Your task to perform on an android device: find which apps use the phone's location Image 0: 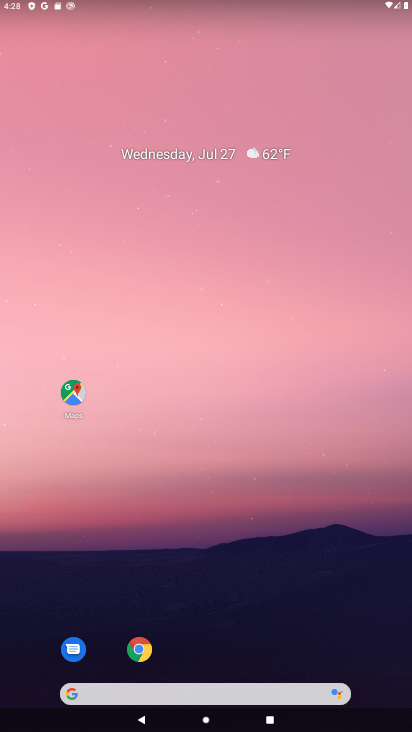
Step 0: drag from (286, 586) to (316, 240)
Your task to perform on an android device: find which apps use the phone's location Image 1: 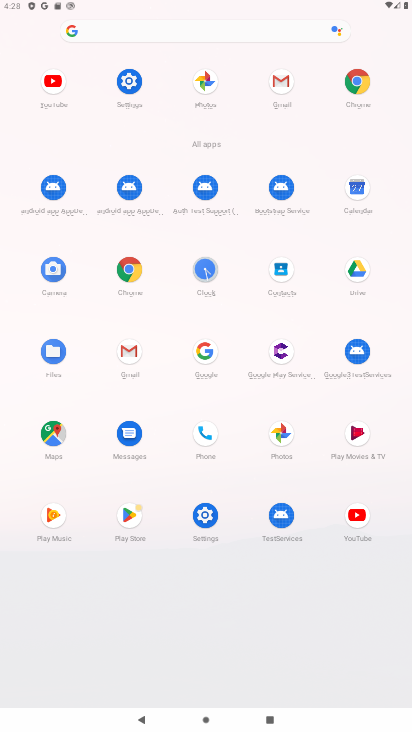
Step 1: click (214, 517)
Your task to perform on an android device: find which apps use the phone's location Image 2: 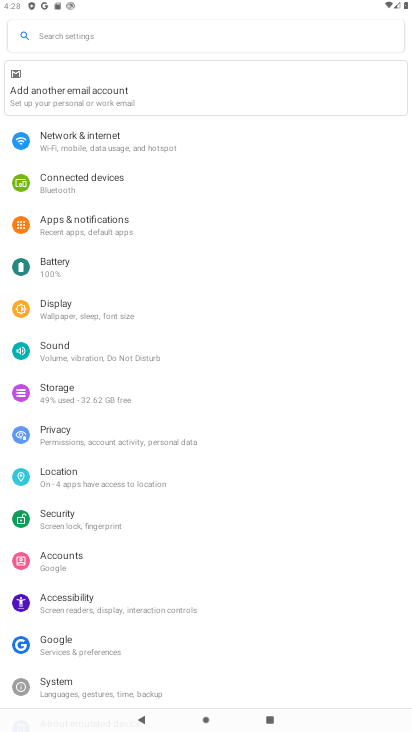
Step 2: click (74, 469)
Your task to perform on an android device: find which apps use the phone's location Image 3: 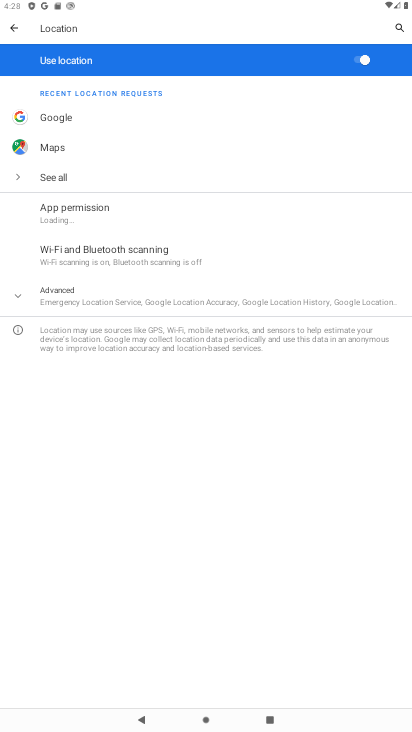
Step 3: task complete